Your task to perform on an android device: Show me recent news Image 0: 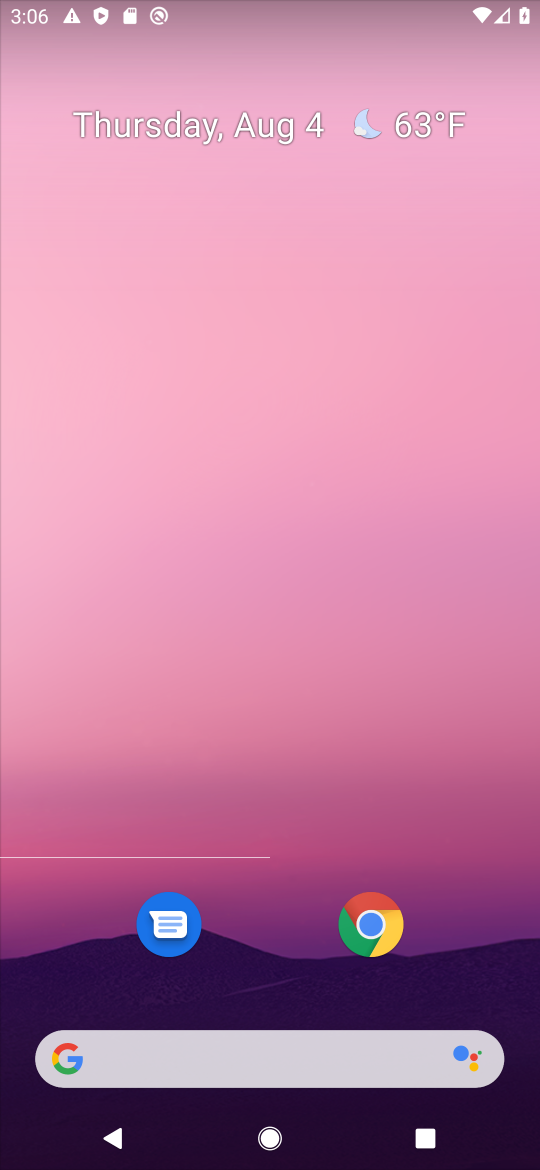
Step 0: press home button
Your task to perform on an android device: Show me recent news Image 1: 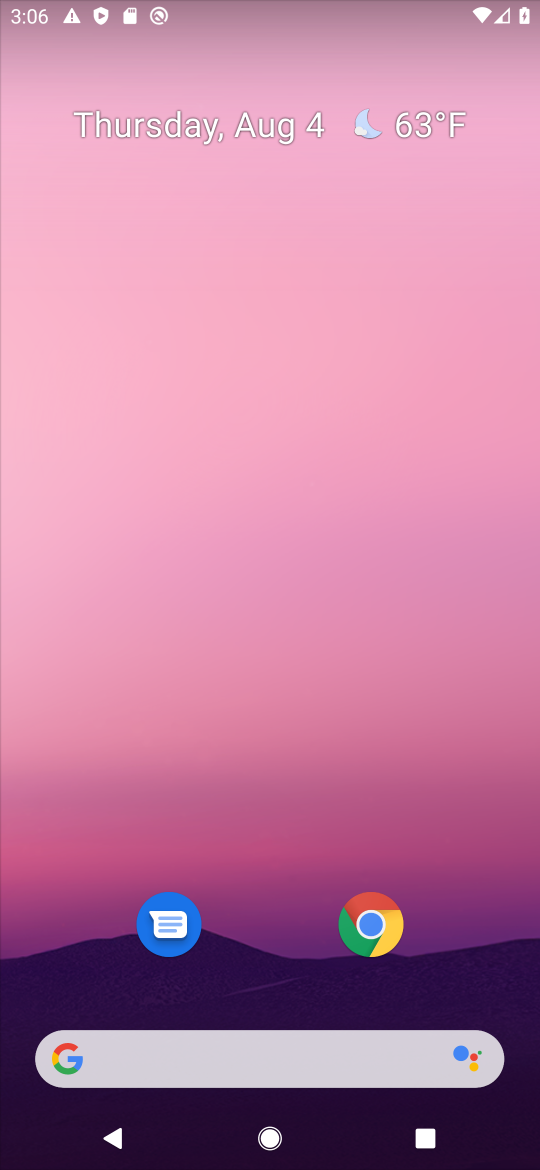
Step 1: click (261, 979)
Your task to perform on an android device: Show me recent news Image 2: 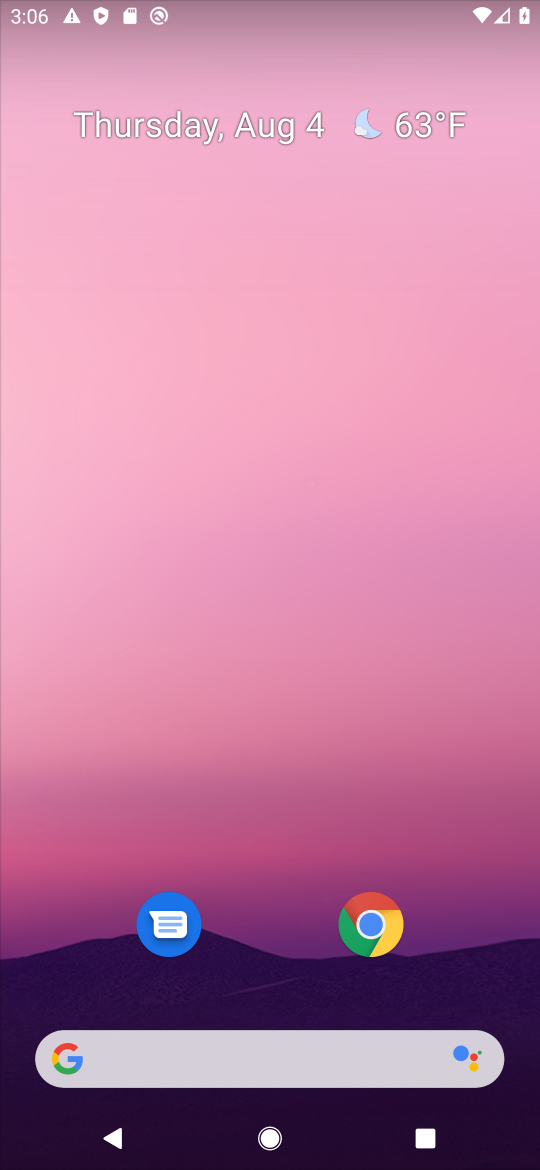
Step 2: task complete